Your task to perform on an android device: Clear the shopping cart on costco.com. Search for "logitech g903" on costco.com, select the first entry, add it to the cart, then select checkout. Image 0: 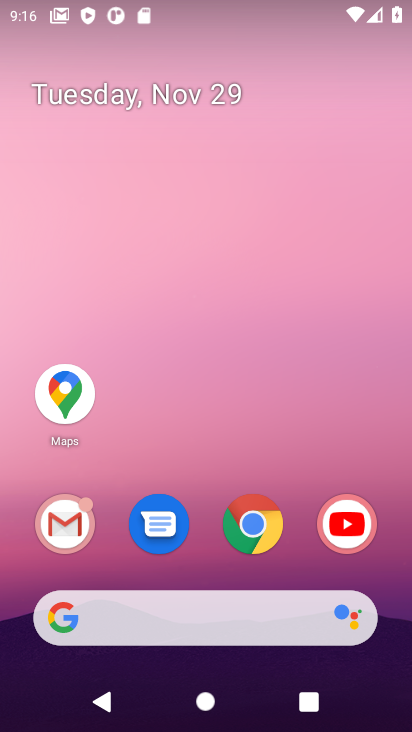
Step 0: click (257, 528)
Your task to perform on an android device: Clear the shopping cart on costco.com. Search for "logitech g903" on costco.com, select the first entry, add it to the cart, then select checkout. Image 1: 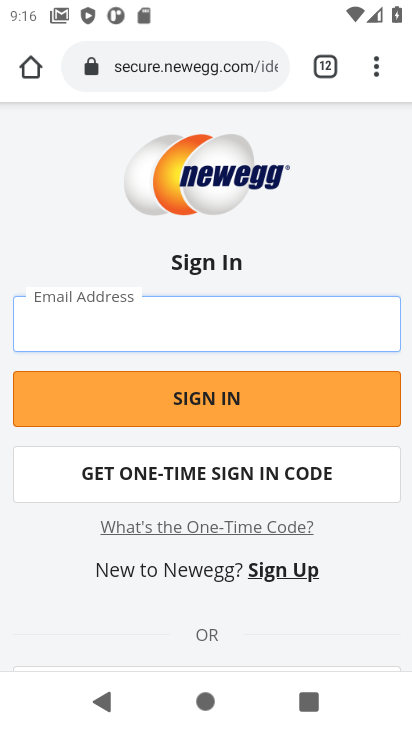
Step 1: click (195, 70)
Your task to perform on an android device: Clear the shopping cart on costco.com. Search for "logitech g903" on costco.com, select the first entry, add it to the cart, then select checkout. Image 2: 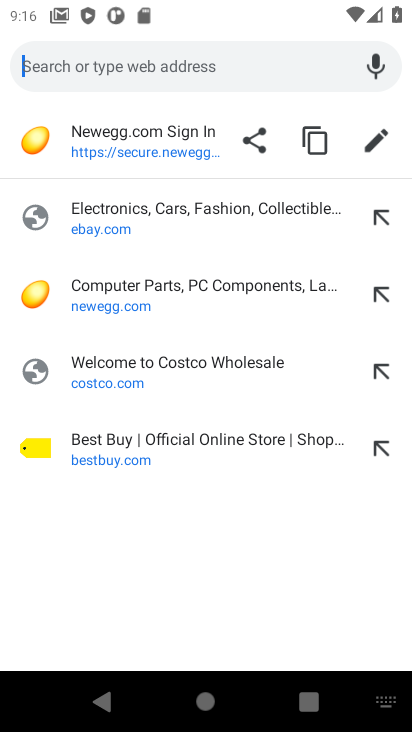
Step 2: click (96, 371)
Your task to perform on an android device: Clear the shopping cart on costco.com. Search for "logitech g903" on costco.com, select the first entry, add it to the cart, then select checkout. Image 3: 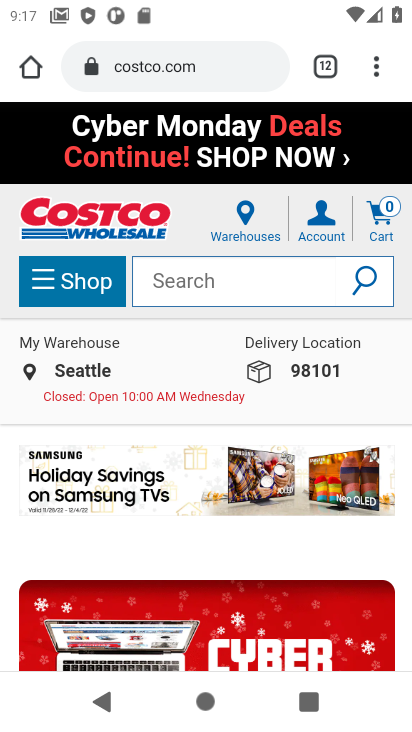
Step 3: click (381, 222)
Your task to perform on an android device: Clear the shopping cart on costco.com. Search for "logitech g903" on costco.com, select the first entry, add it to the cart, then select checkout. Image 4: 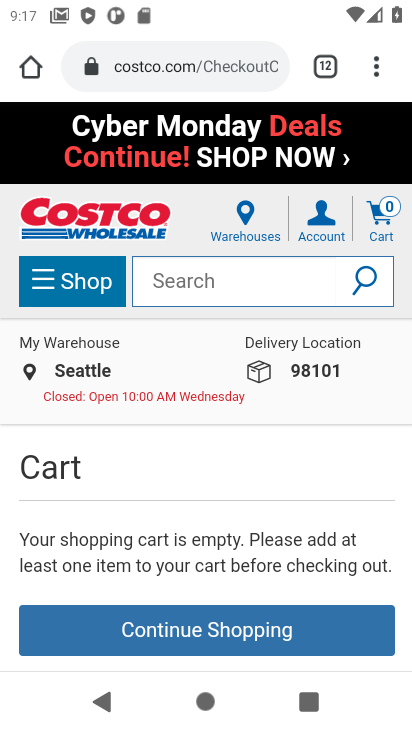
Step 4: click (165, 285)
Your task to perform on an android device: Clear the shopping cart on costco.com. Search for "logitech g903" on costco.com, select the first entry, add it to the cart, then select checkout. Image 5: 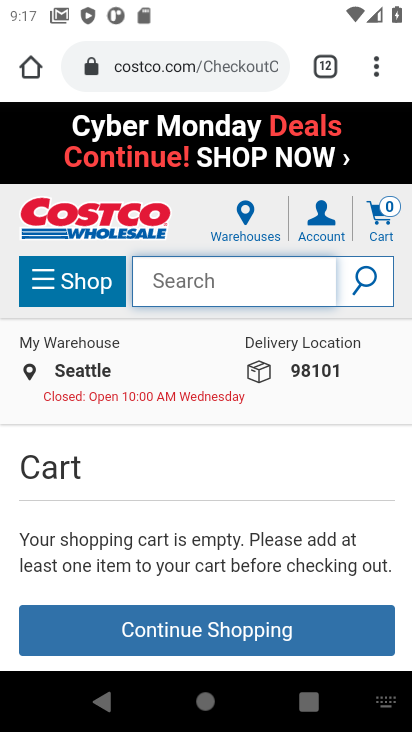
Step 5: type "logitech g903"
Your task to perform on an android device: Clear the shopping cart on costco.com. Search for "logitech g903" on costco.com, select the first entry, add it to the cart, then select checkout. Image 6: 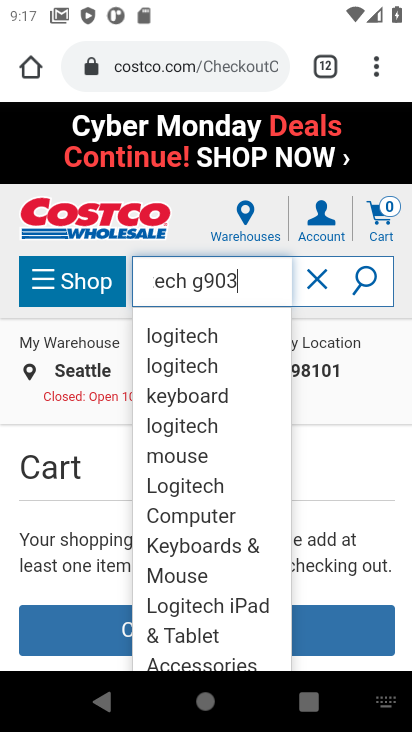
Step 6: click (361, 282)
Your task to perform on an android device: Clear the shopping cart on costco.com. Search for "logitech g903" on costco.com, select the first entry, add it to the cart, then select checkout. Image 7: 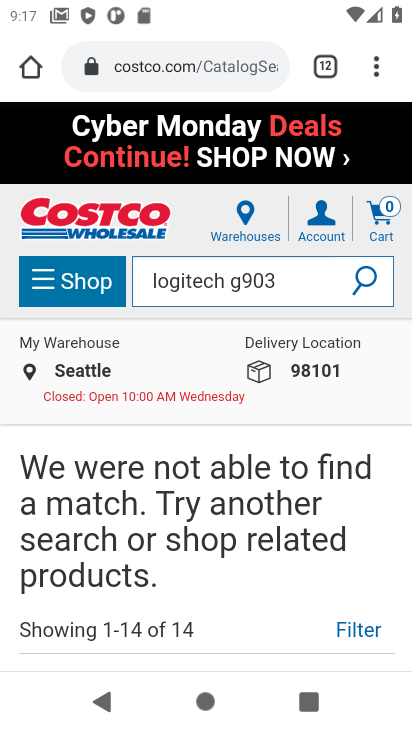
Step 7: task complete